Your task to perform on an android device: turn on translation in the chrome app Image 0: 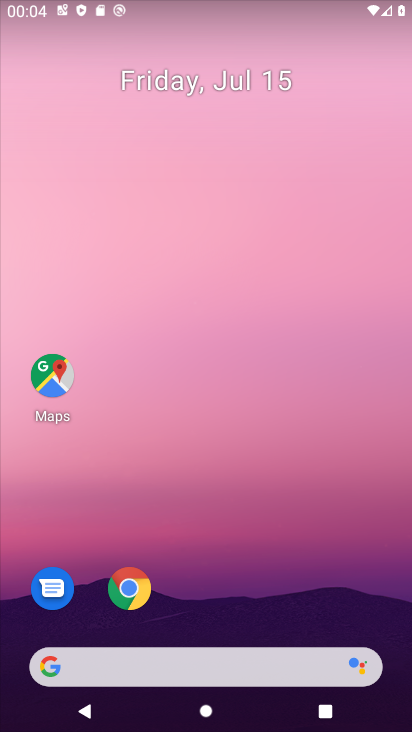
Step 0: click (136, 591)
Your task to perform on an android device: turn on translation in the chrome app Image 1: 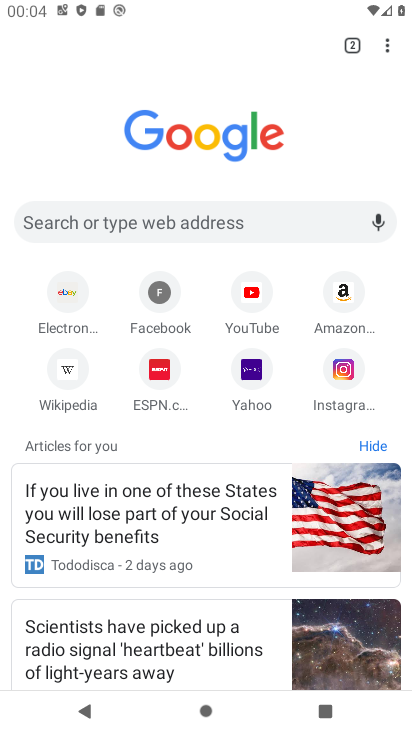
Step 1: drag from (384, 42) to (226, 386)
Your task to perform on an android device: turn on translation in the chrome app Image 2: 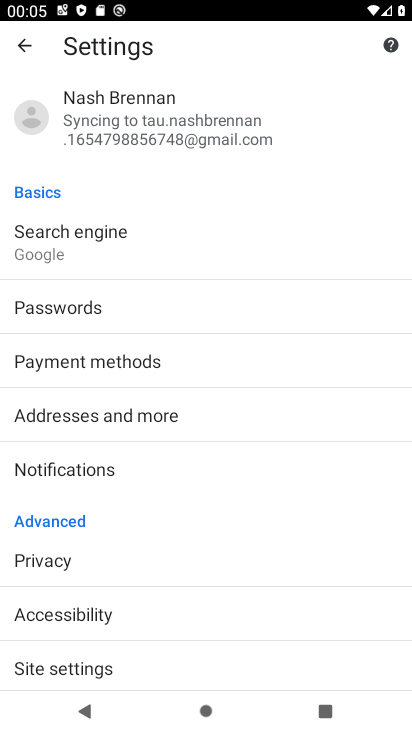
Step 2: drag from (114, 622) to (173, 286)
Your task to perform on an android device: turn on translation in the chrome app Image 3: 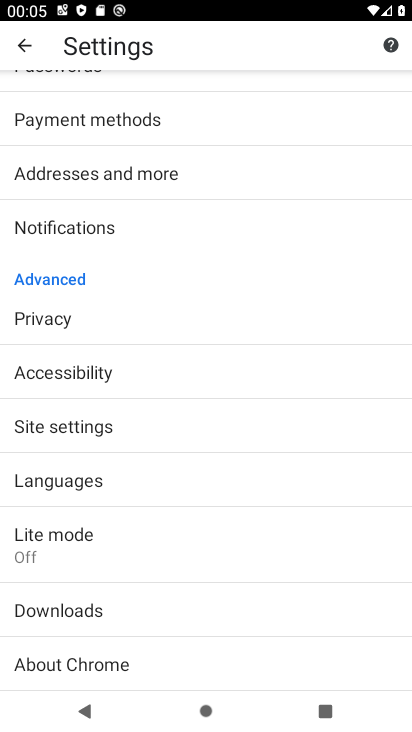
Step 3: click (98, 476)
Your task to perform on an android device: turn on translation in the chrome app Image 4: 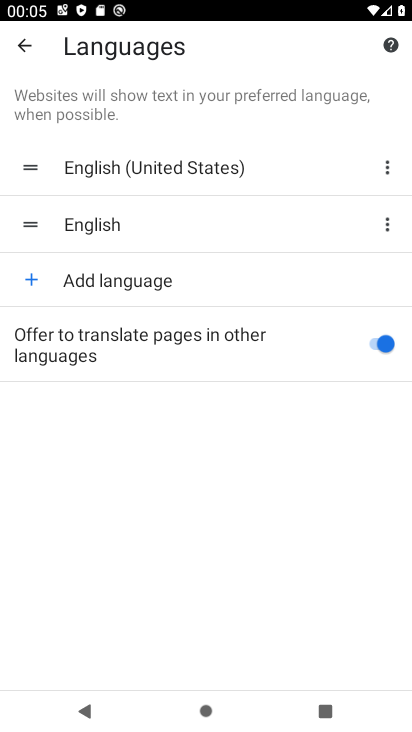
Step 4: task complete